Your task to perform on an android device: star an email in the gmail app Image 0: 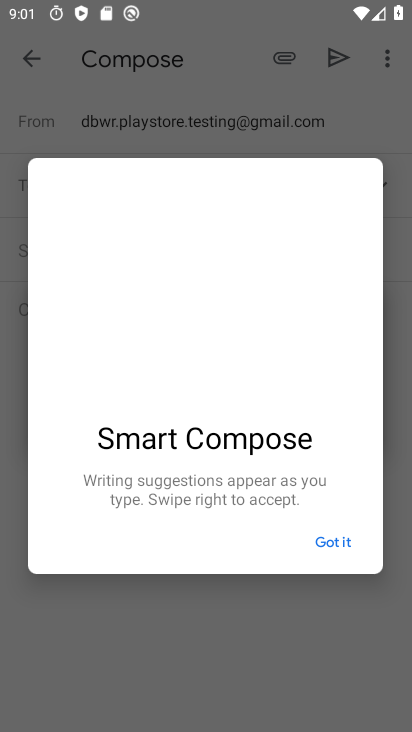
Step 0: press home button
Your task to perform on an android device: star an email in the gmail app Image 1: 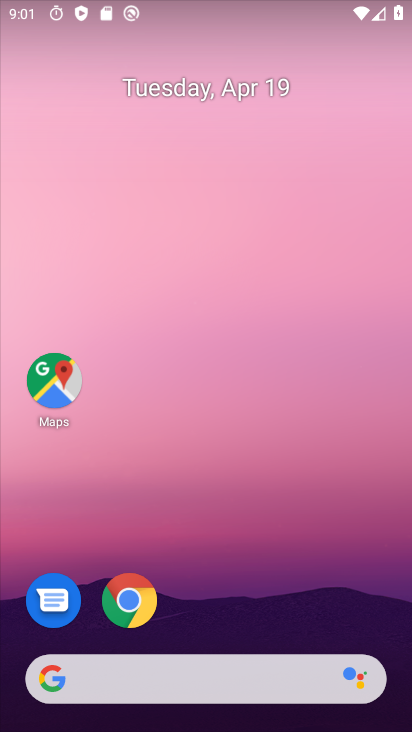
Step 1: drag from (173, 593) to (201, 0)
Your task to perform on an android device: star an email in the gmail app Image 2: 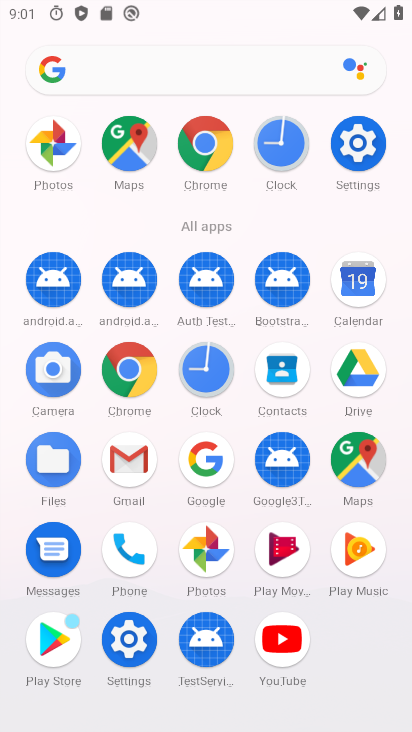
Step 2: click (141, 487)
Your task to perform on an android device: star an email in the gmail app Image 3: 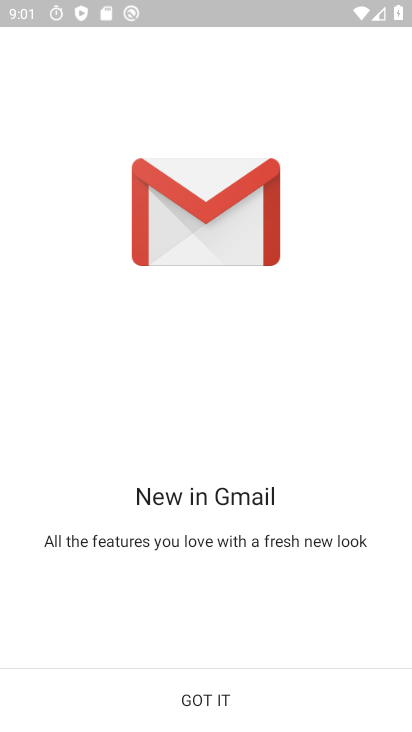
Step 3: click (214, 716)
Your task to perform on an android device: star an email in the gmail app Image 4: 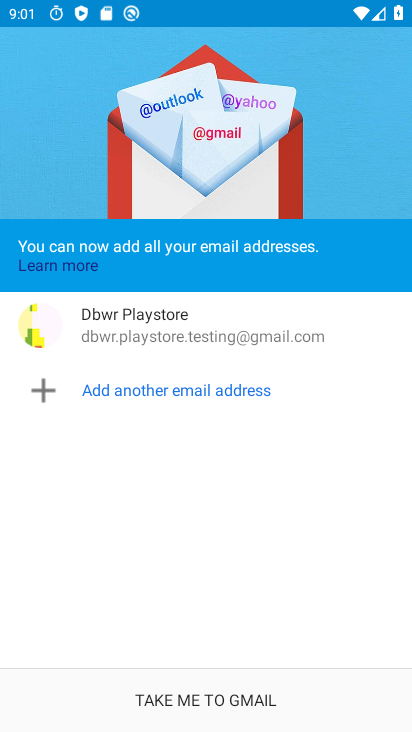
Step 4: click (214, 716)
Your task to perform on an android device: star an email in the gmail app Image 5: 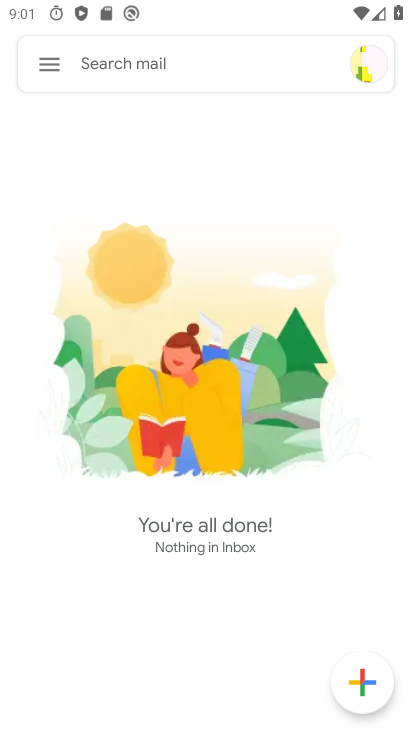
Step 5: task complete